Your task to perform on an android device: turn off location Image 0: 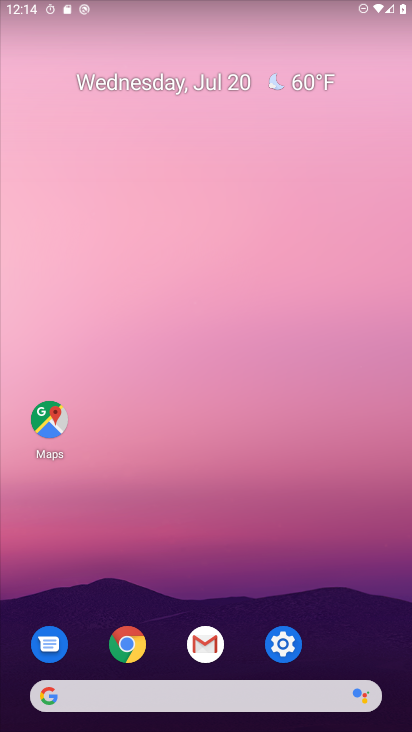
Step 0: click (292, 636)
Your task to perform on an android device: turn off location Image 1: 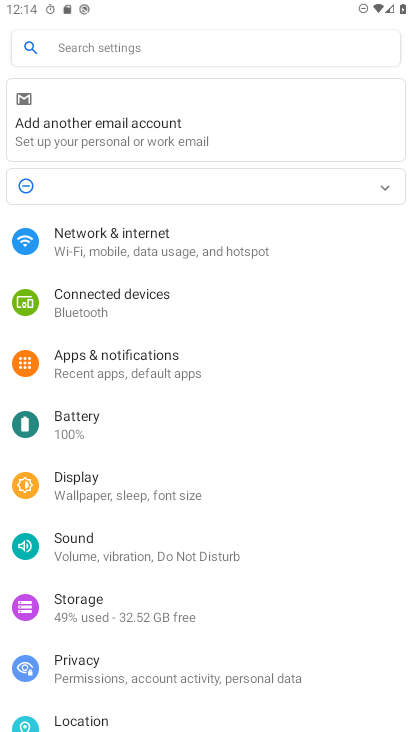
Step 1: click (120, 714)
Your task to perform on an android device: turn off location Image 2: 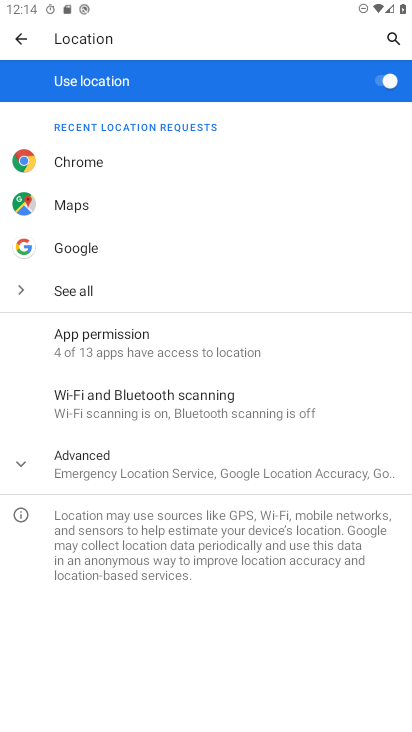
Step 2: click (384, 91)
Your task to perform on an android device: turn off location Image 3: 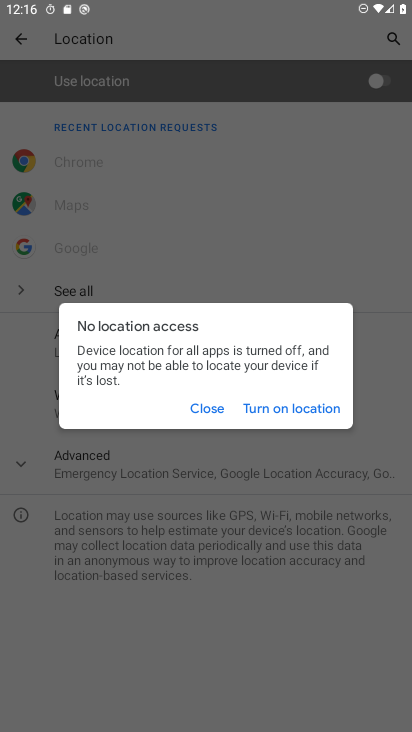
Step 3: task complete